Your task to perform on an android device: make emails show in primary in the gmail app Image 0: 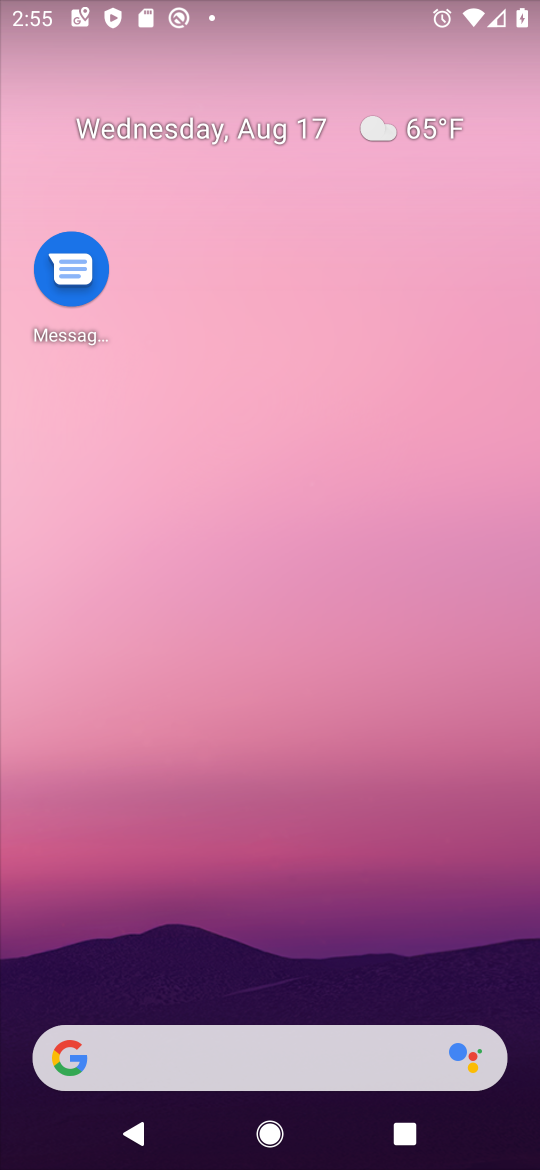
Step 0: drag from (282, 833) to (493, 960)
Your task to perform on an android device: make emails show in primary in the gmail app Image 1: 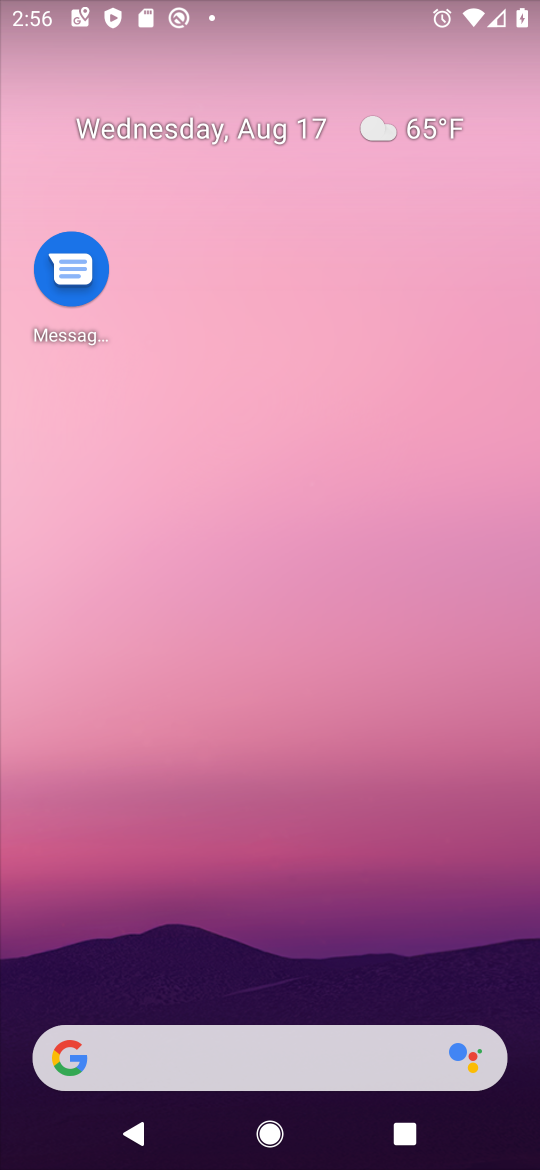
Step 1: drag from (322, 1022) to (528, 781)
Your task to perform on an android device: make emails show in primary in the gmail app Image 2: 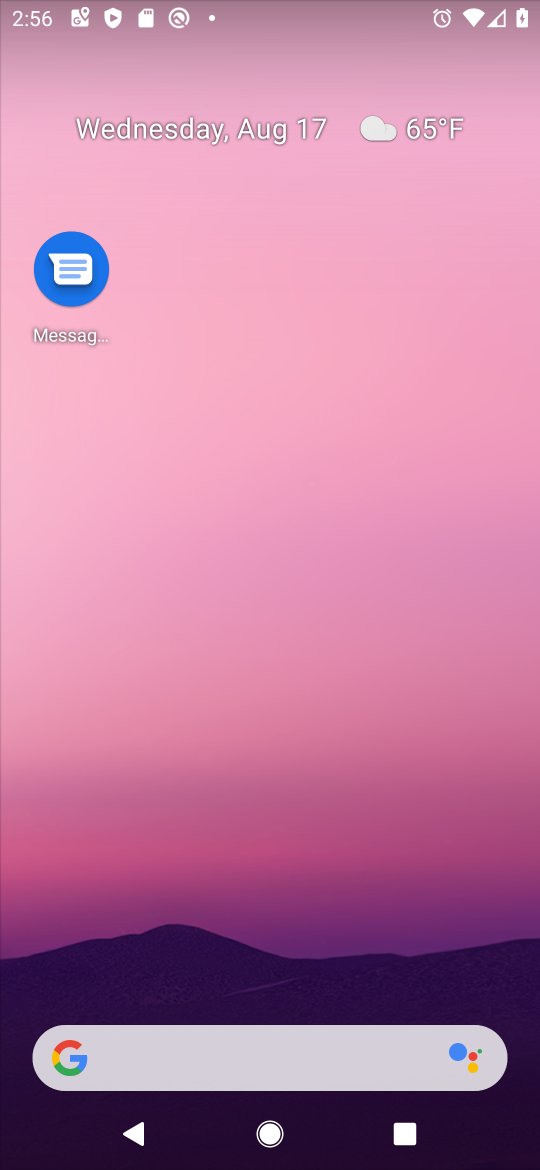
Step 2: drag from (274, 1010) to (519, 316)
Your task to perform on an android device: make emails show in primary in the gmail app Image 3: 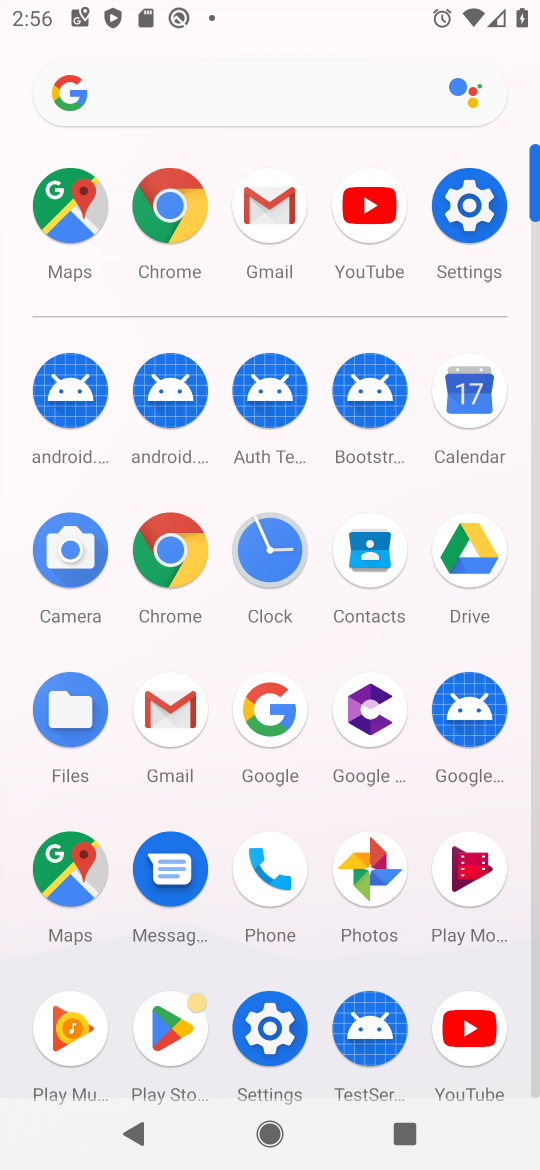
Step 3: click (178, 724)
Your task to perform on an android device: make emails show in primary in the gmail app Image 4: 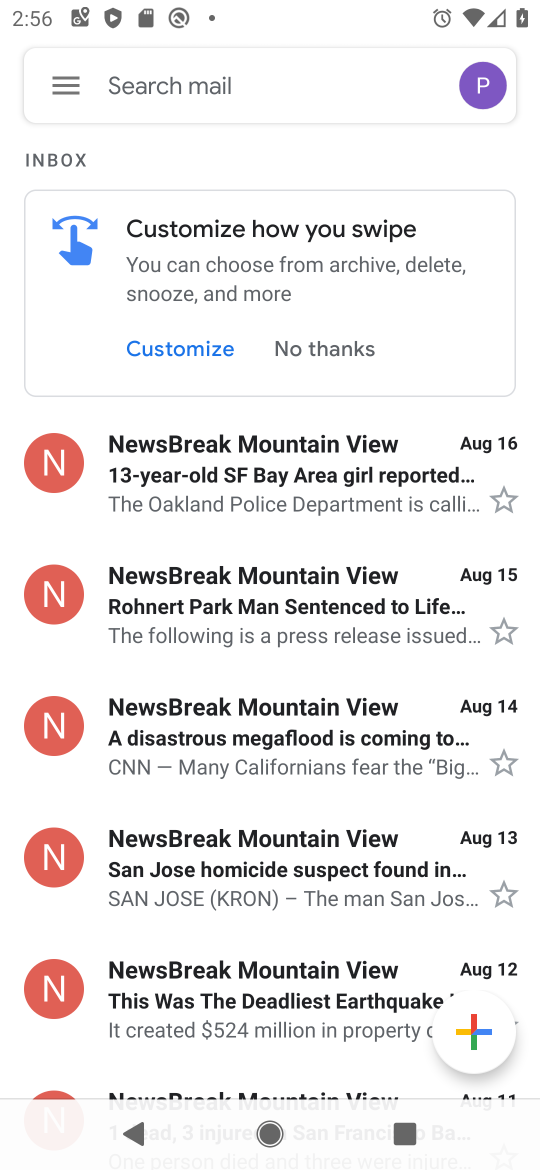
Step 4: click (43, 88)
Your task to perform on an android device: make emails show in primary in the gmail app Image 5: 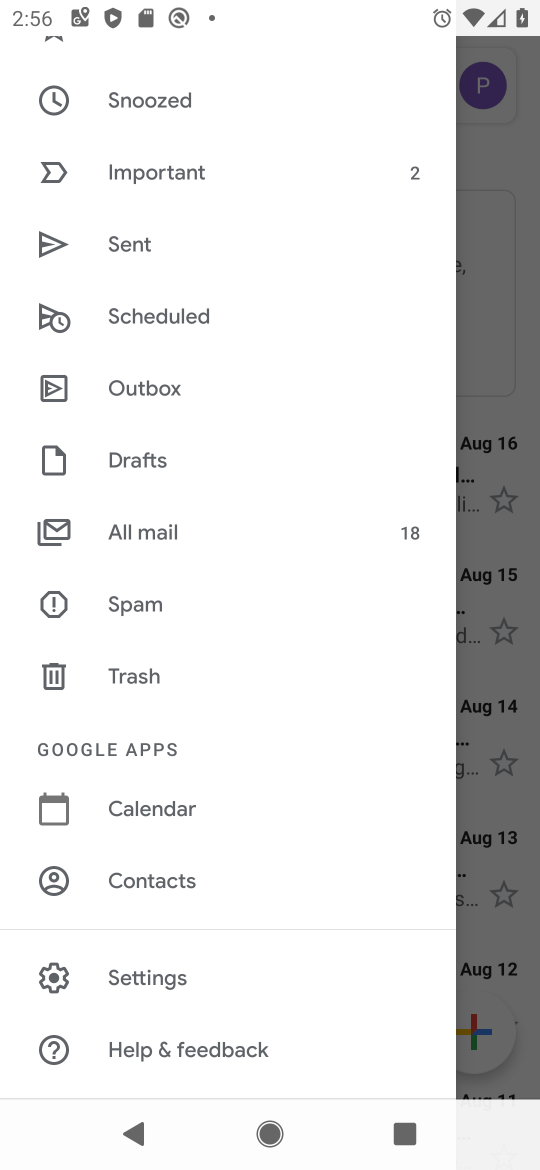
Step 5: click (181, 959)
Your task to perform on an android device: make emails show in primary in the gmail app Image 6: 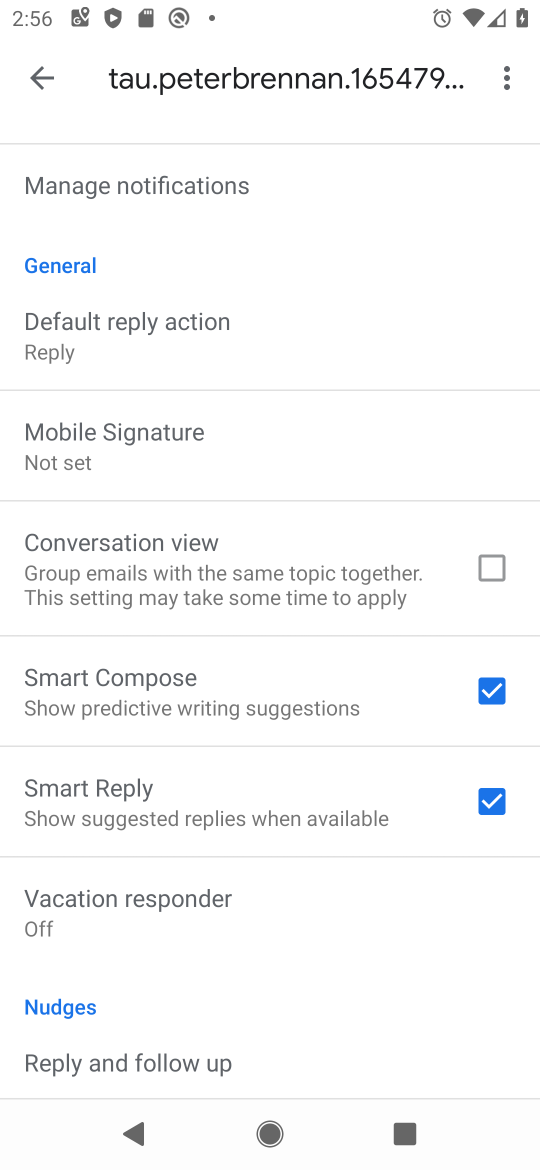
Step 6: drag from (201, 350) to (208, 931)
Your task to perform on an android device: make emails show in primary in the gmail app Image 7: 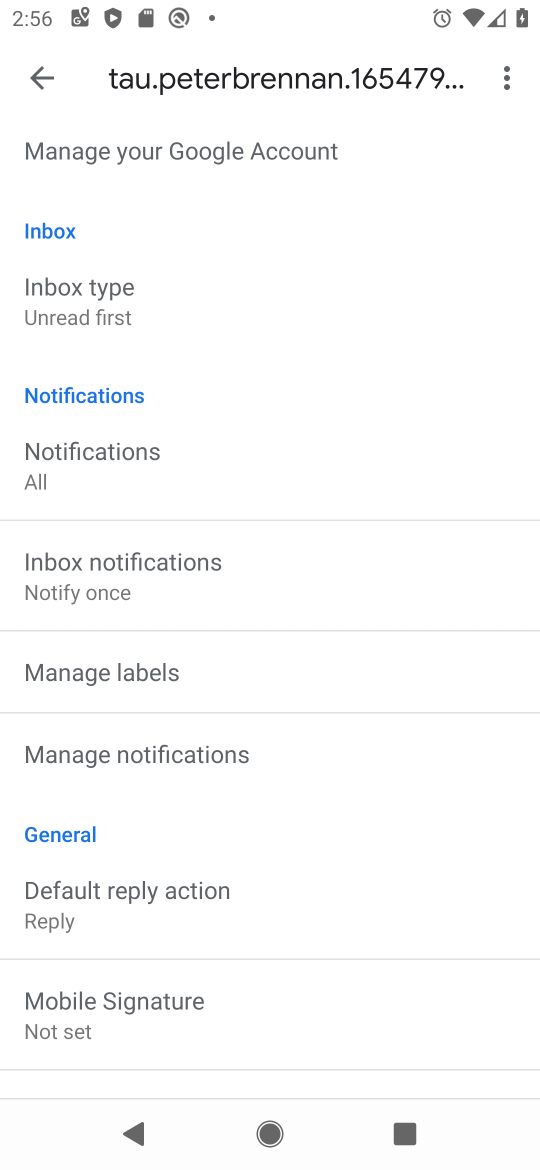
Step 7: click (98, 313)
Your task to perform on an android device: make emails show in primary in the gmail app Image 8: 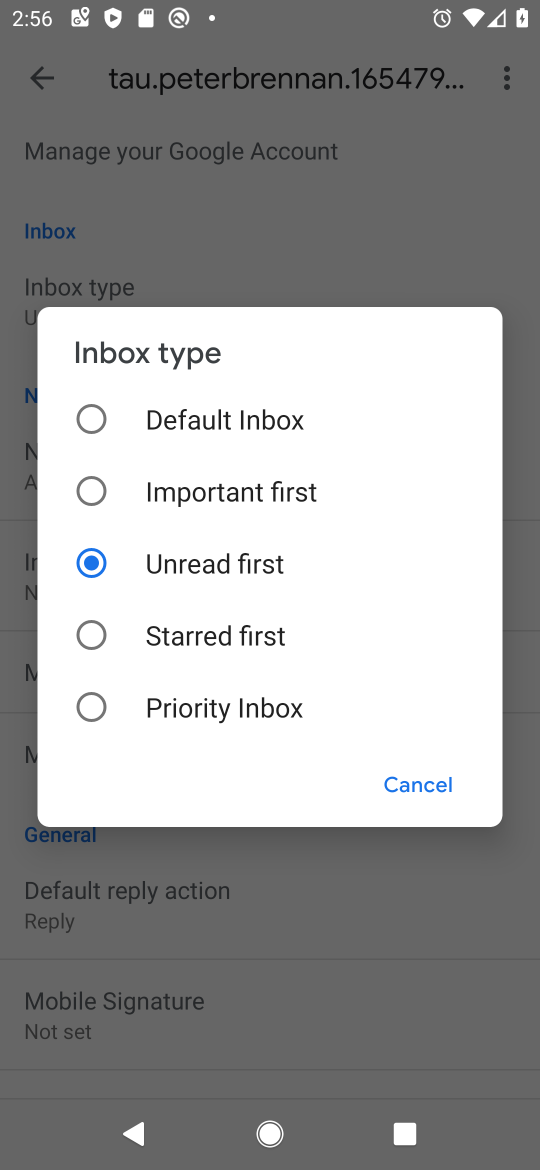
Step 8: click (163, 723)
Your task to perform on an android device: make emails show in primary in the gmail app Image 9: 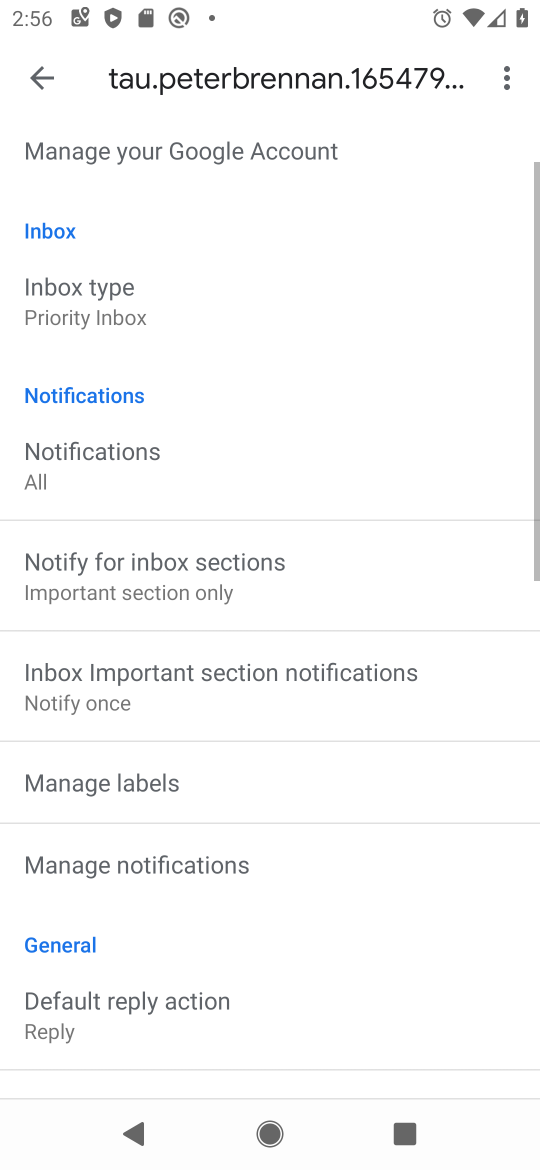
Step 9: click (91, 307)
Your task to perform on an android device: make emails show in primary in the gmail app Image 10: 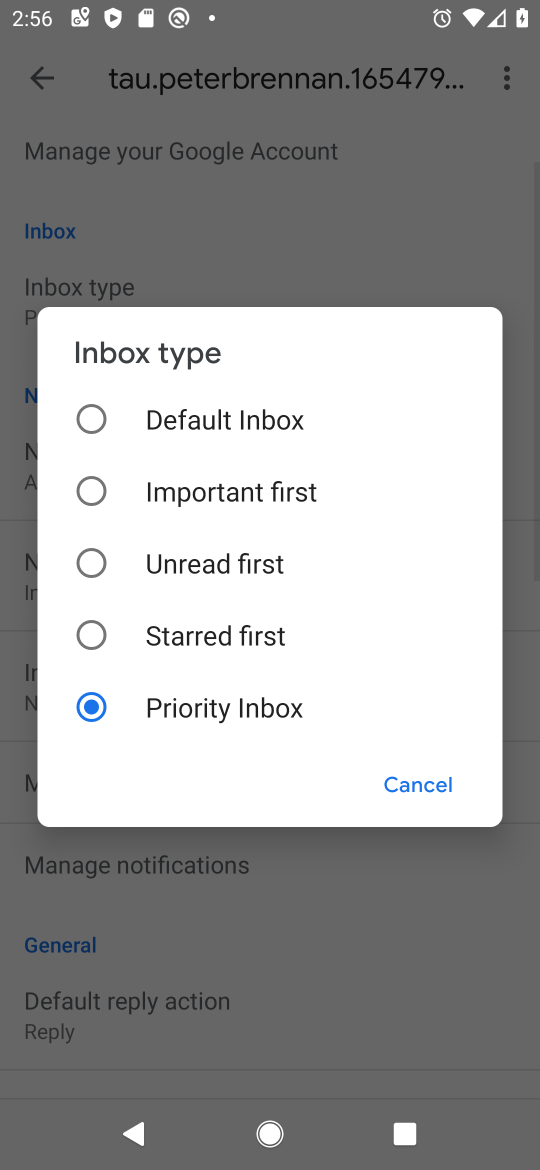
Step 10: click (113, 402)
Your task to perform on an android device: make emails show in primary in the gmail app Image 11: 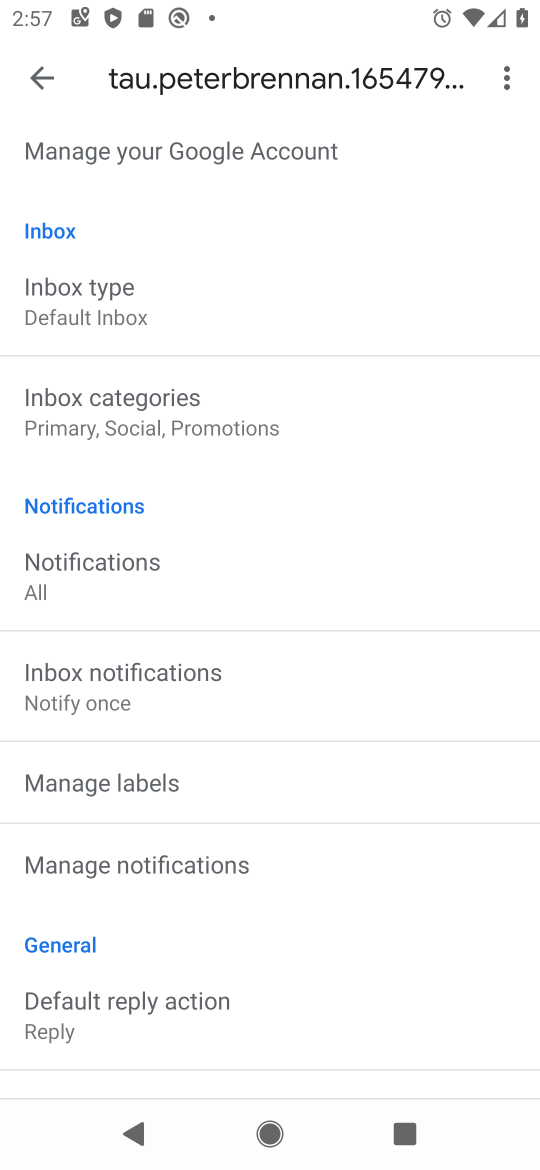
Step 11: click (27, 65)
Your task to perform on an android device: make emails show in primary in the gmail app Image 12: 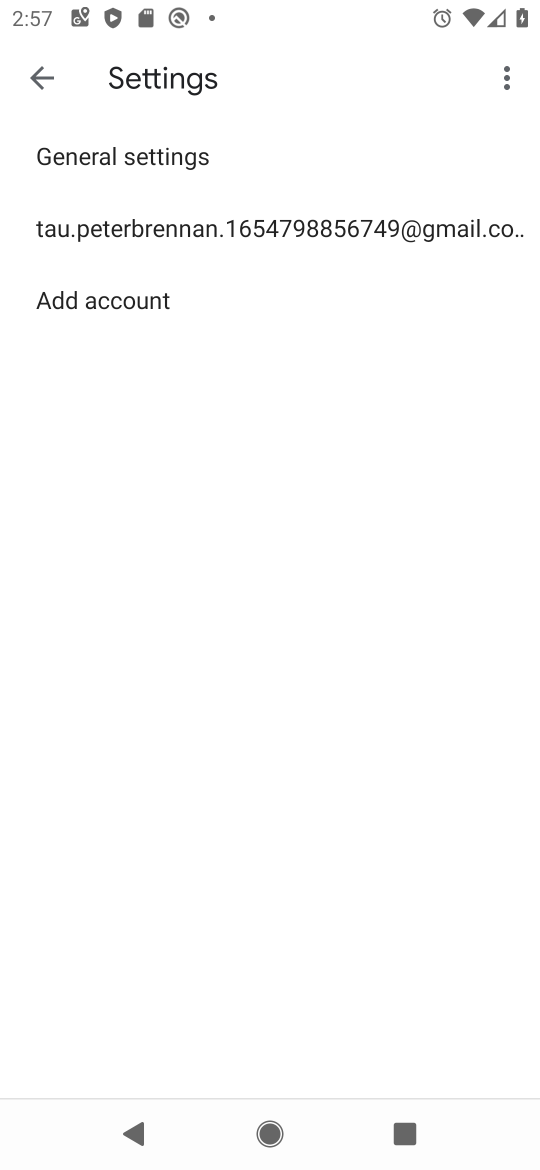
Step 12: click (28, 63)
Your task to perform on an android device: make emails show in primary in the gmail app Image 13: 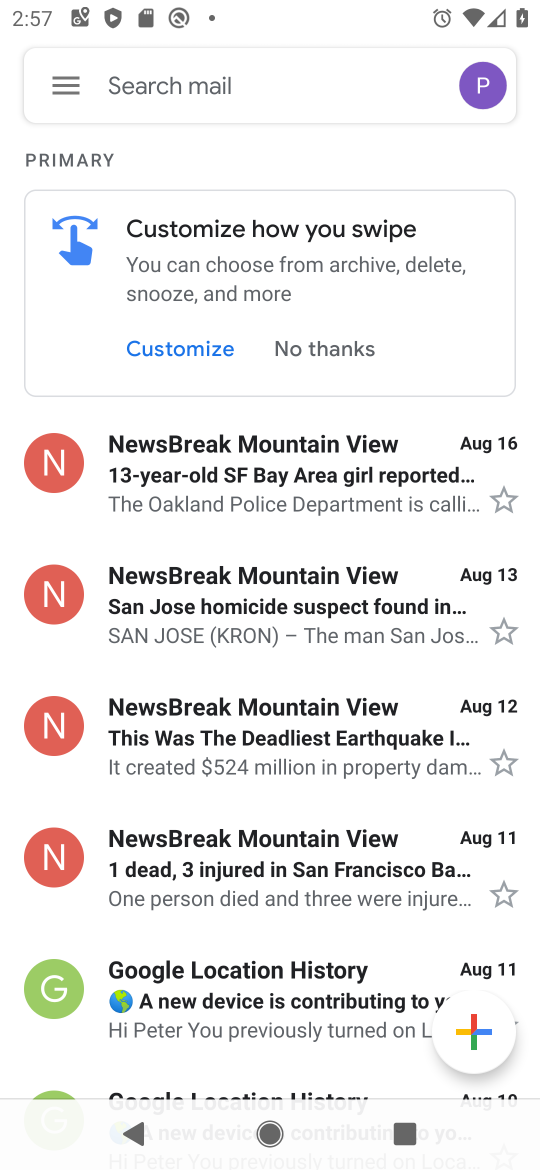
Step 13: task complete